Your task to perform on an android device: stop showing notifications on the lock screen Image 0: 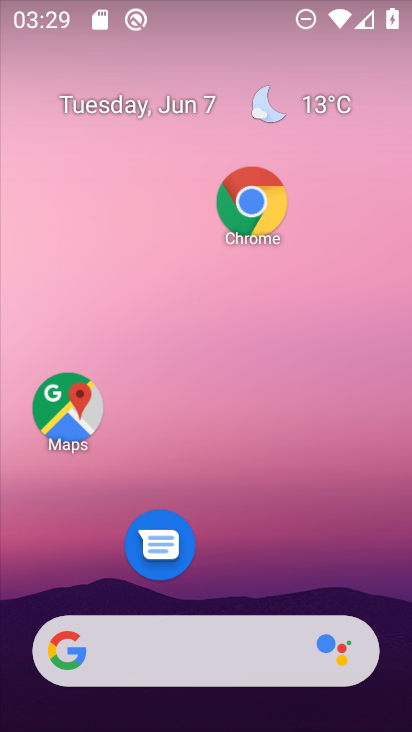
Step 0: drag from (246, 603) to (254, 208)
Your task to perform on an android device: stop showing notifications on the lock screen Image 1: 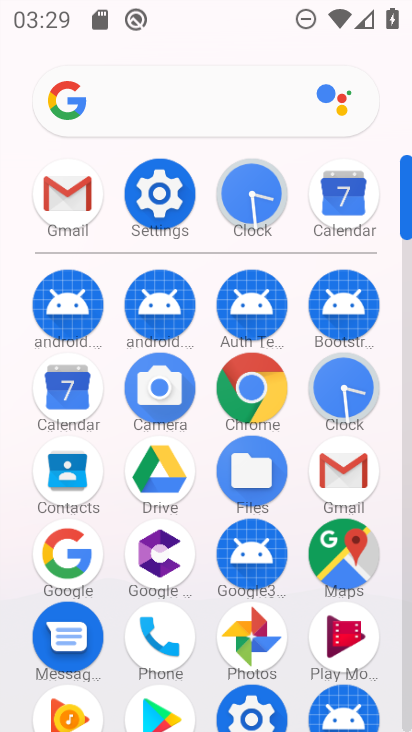
Step 1: click (158, 183)
Your task to perform on an android device: stop showing notifications on the lock screen Image 2: 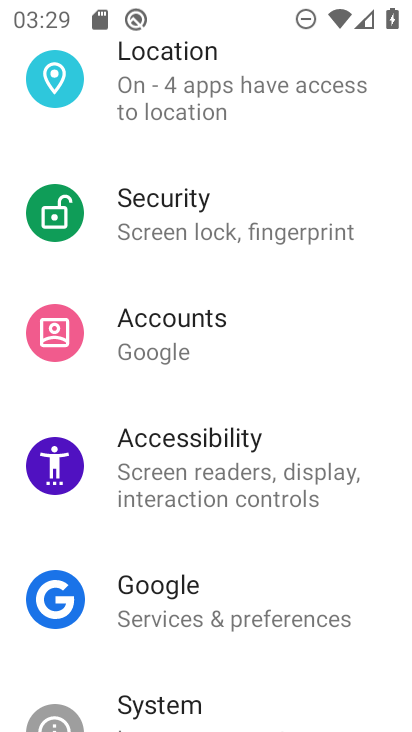
Step 2: drag from (202, 119) to (204, 575)
Your task to perform on an android device: stop showing notifications on the lock screen Image 3: 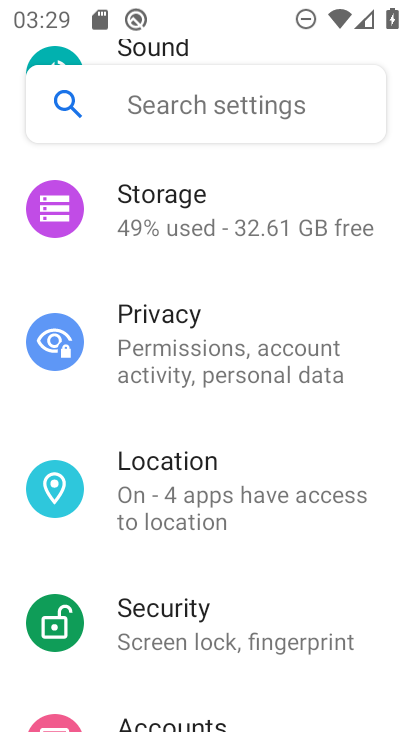
Step 3: drag from (217, 163) to (242, 594)
Your task to perform on an android device: stop showing notifications on the lock screen Image 4: 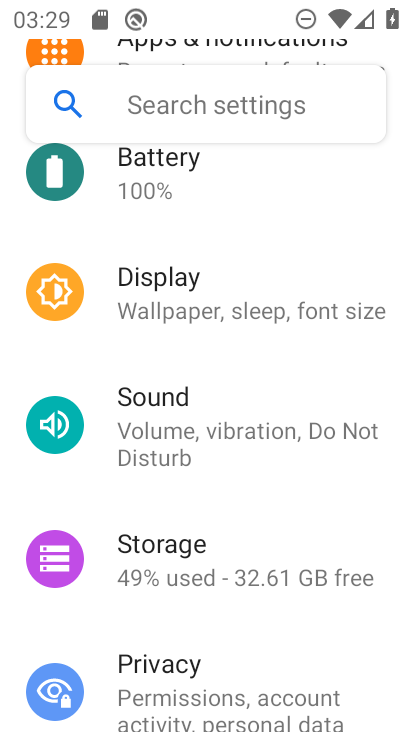
Step 4: drag from (222, 352) to (211, 634)
Your task to perform on an android device: stop showing notifications on the lock screen Image 5: 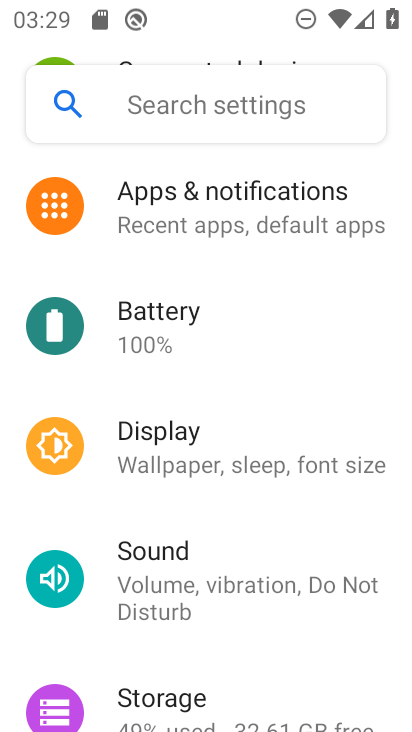
Step 5: click (185, 191)
Your task to perform on an android device: stop showing notifications on the lock screen Image 6: 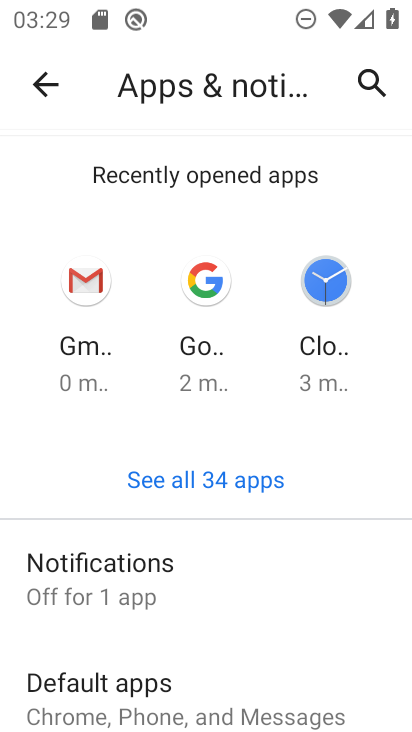
Step 6: click (137, 568)
Your task to perform on an android device: stop showing notifications on the lock screen Image 7: 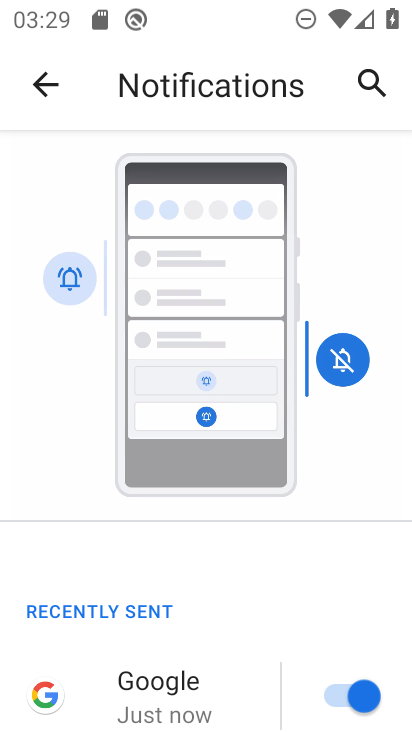
Step 7: drag from (155, 627) to (230, 166)
Your task to perform on an android device: stop showing notifications on the lock screen Image 8: 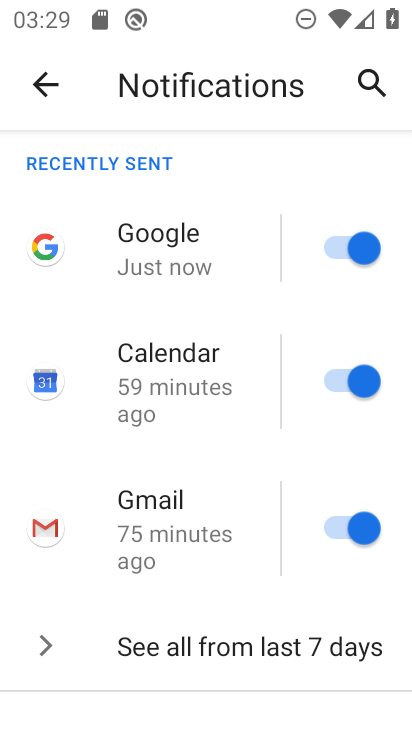
Step 8: drag from (149, 616) to (195, 322)
Your task to perform on an android device: stop showing notifications on the lock screen Image 9: 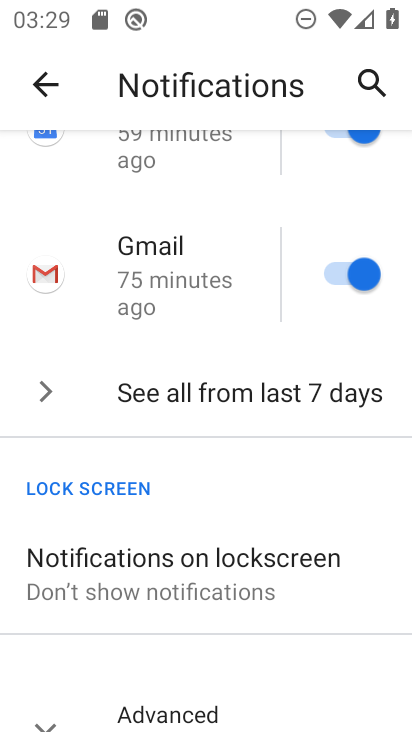
Step 9: click (166, 565)
Your task to perform on an android device: stop showing notifications on the lock screen Image 10: 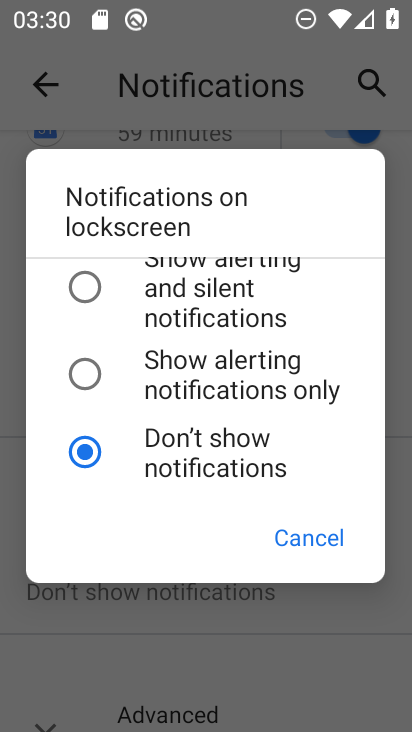
Step 10: task complete